Your task to perform on an android device: turn on bluetooth scan Image 0: 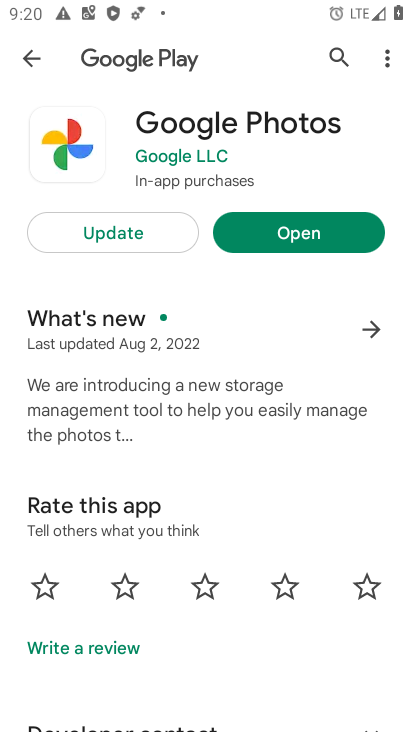
Step 0: press home button
Your task to perform on an android device: turn on bluetooth scan Image 1: 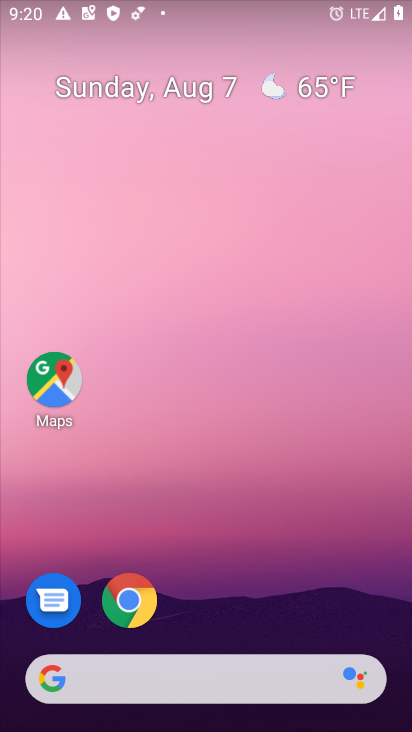
Step 1: drag from (170, 424) to (155, 6)
Your task to perform on an android device: turn on bluetooth scan Image 2: 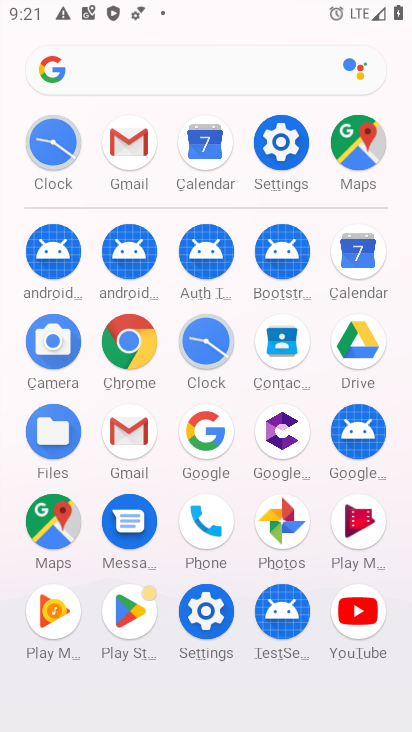
Step 2: click (278, 147)
Your task to perform on an android device: turn on bluetooth scan Image 3: 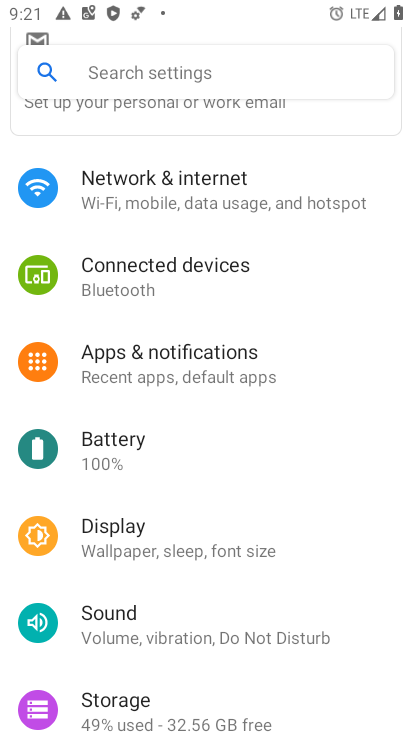
Step 3: drag from (146, 533) to (186, 241)
Your task to perform on an android device: turn on bluetooth scan Image 4: 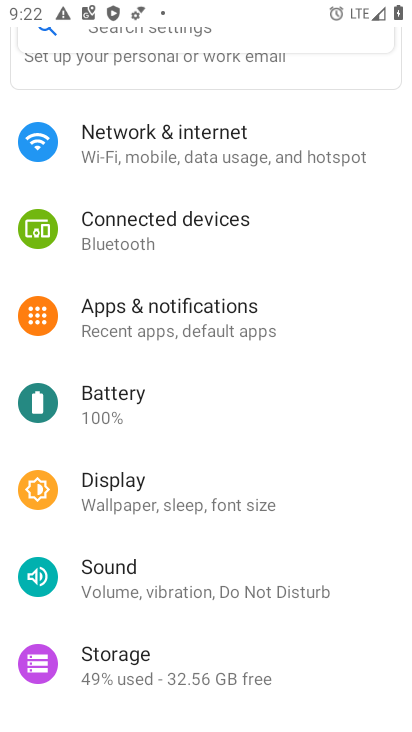
Step 4: drag from (157, 593) to (157, 210)
Your task to perform on an android device: turn on bluetooth scan Image 5: 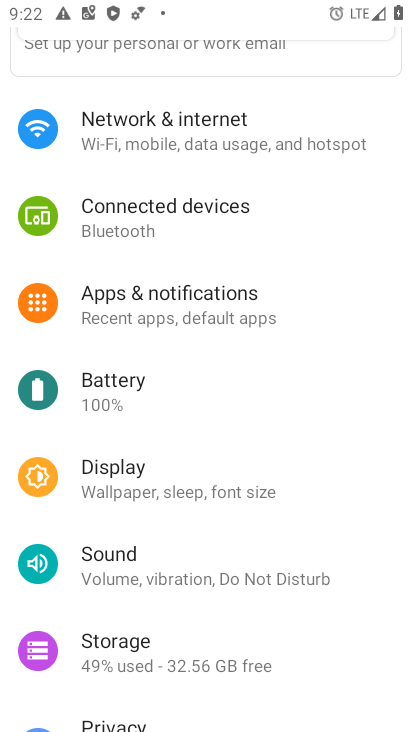
Step 5: drag from (129, 346) to (131, 201)
Your task to perform on an android device: turn on bluetooth scan Image 6: 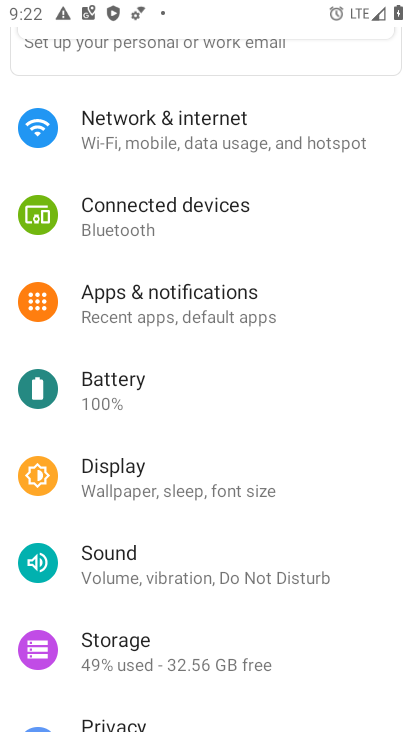
Step 6: drag from (196, 517) to (196, 155)
Your task to perform on an android device: turn on bluetooth scan Image 7: 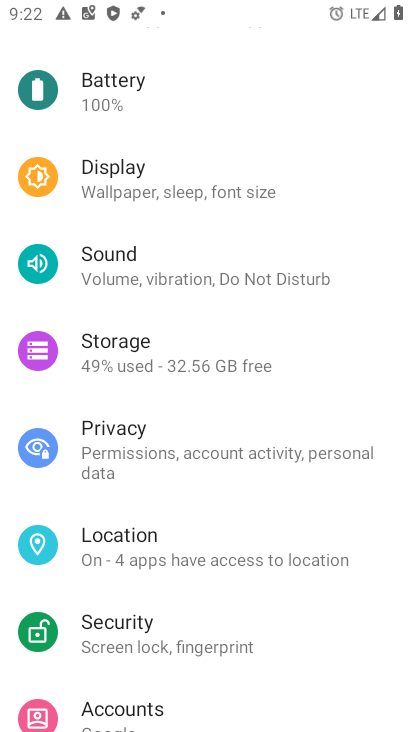
Step 7: click (91, 582)
Your task to perform on an android device: turn on bluetooth scan Image 8: 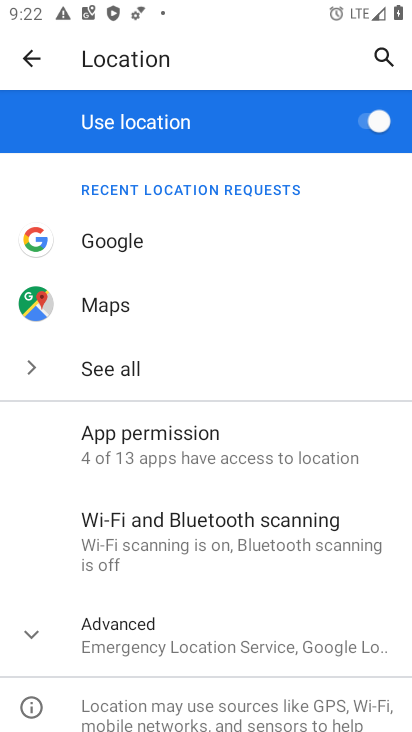
Step 8: drag from (133, 586) to (148, 312)
Your task to perform on an android device: turn on bluetooth scan Image 9: 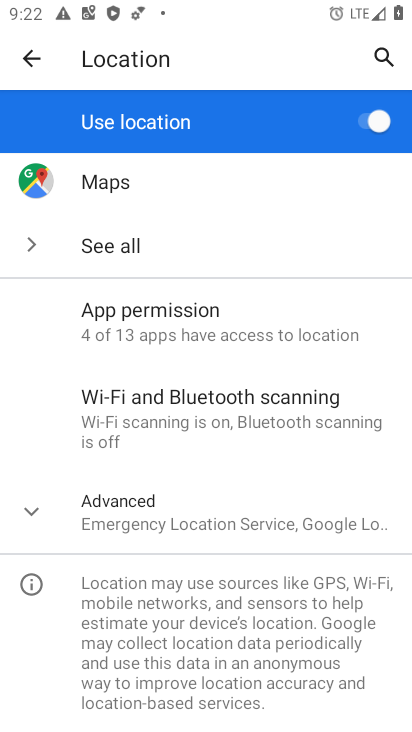
Step 9: click (153, 410)
Your task to perform on an android device: turn on bluetooth scan Image 10: 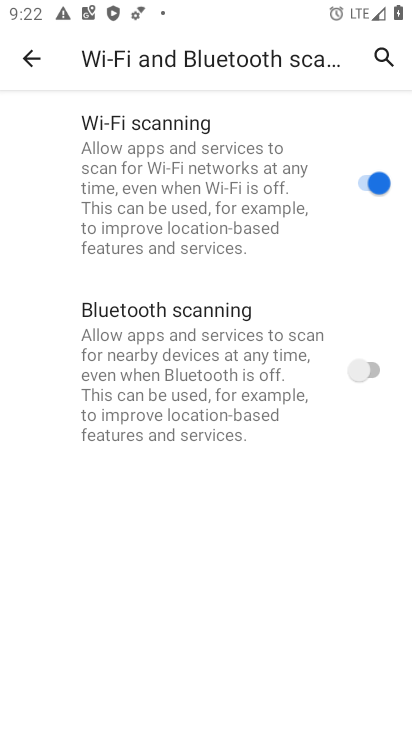
Step 10: click (366, 378)
Your task to perform on an android device: turn on bluetooth scan Image 11: 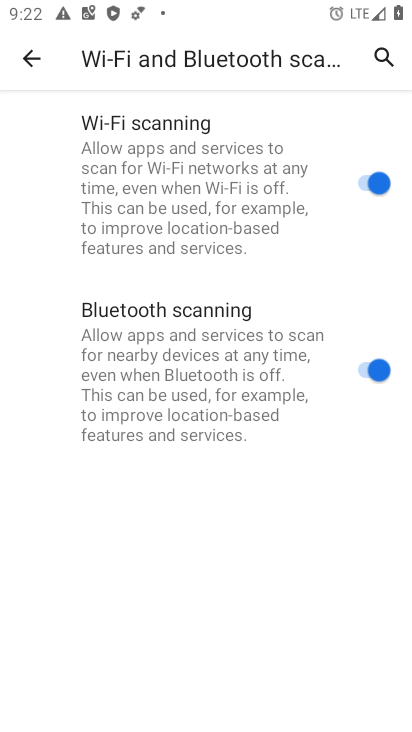
Step 11: task complete